Your task to perform on an android device: Clear all items from cart on newegg.com. Add "alienware aurora" to the cart on newegg.com, then select checkout. Image 0: 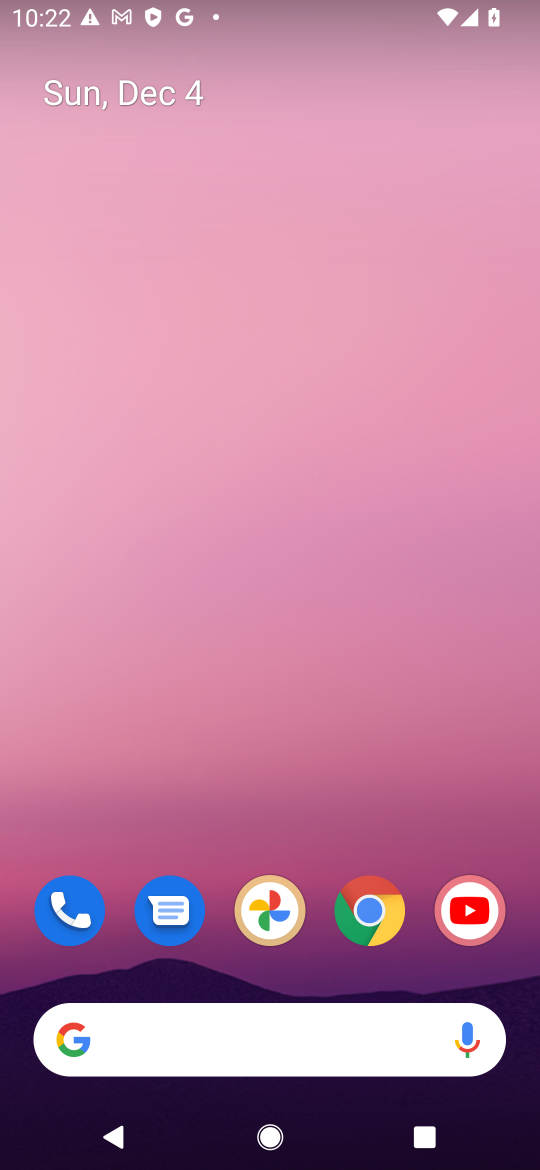
Step 0: drag from (343, 937) to (387, 170)
Your task to perform on an android device: Clear all items from cart on newegg.com. Add "alienware aurora" to the cart on newegg.com, then select checkout. Image 1: 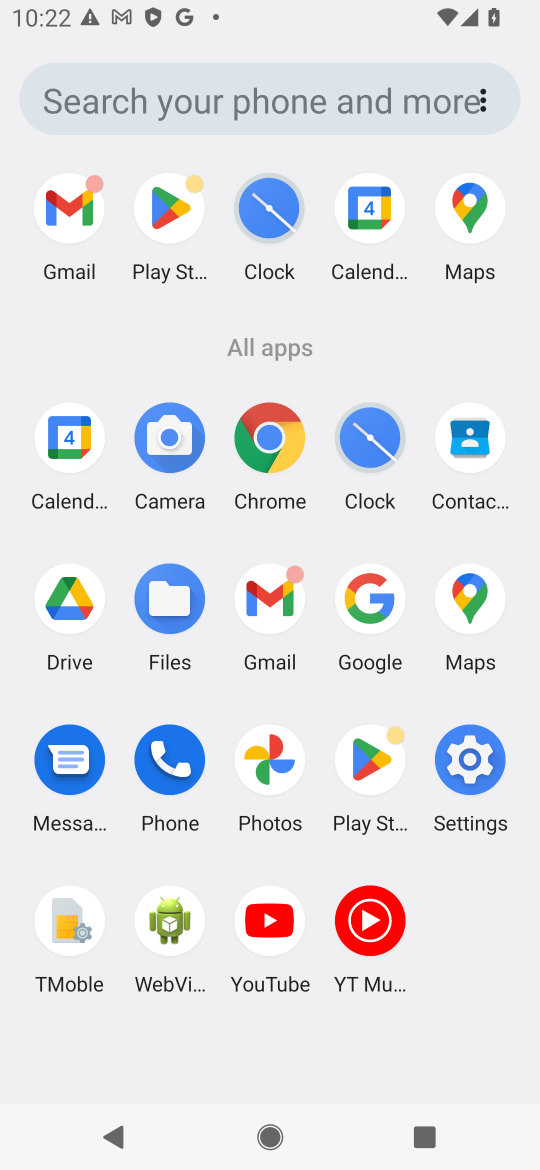
Step 1: click (270, 436)
Your task to perform on an android device: Clear all items from cart on newegg.com. Add "alienware aurora" to the cart on newegg.com, then select checkout. Image 2: 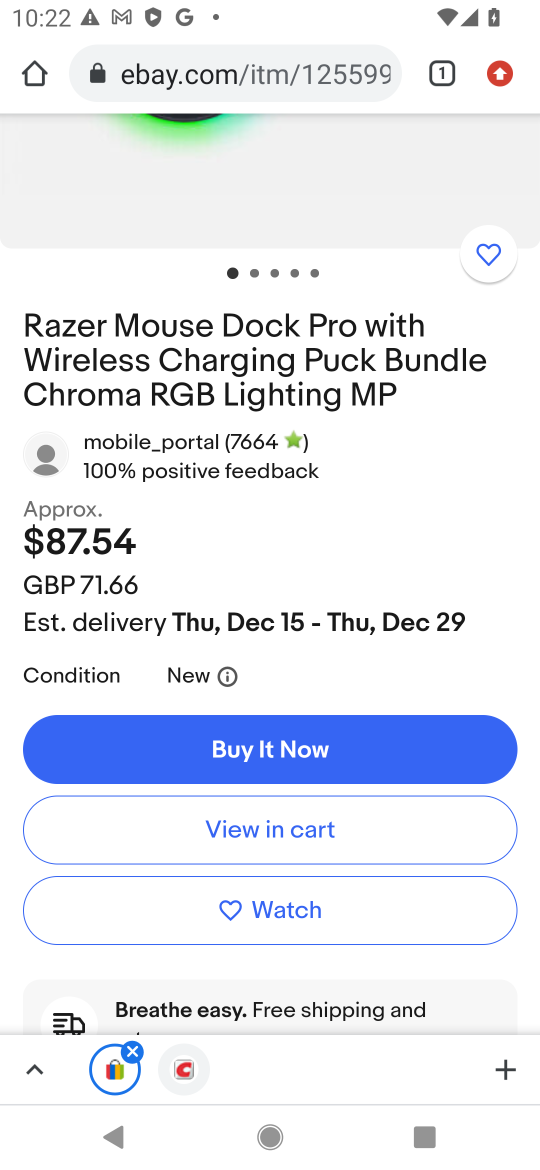
Step 2: click (181, 71)
Your task to perform on an android device: Clear all items from cart on newegg.com. Add "alienware aurora" to the cart on newegg.com, then select checkout. Image 3: 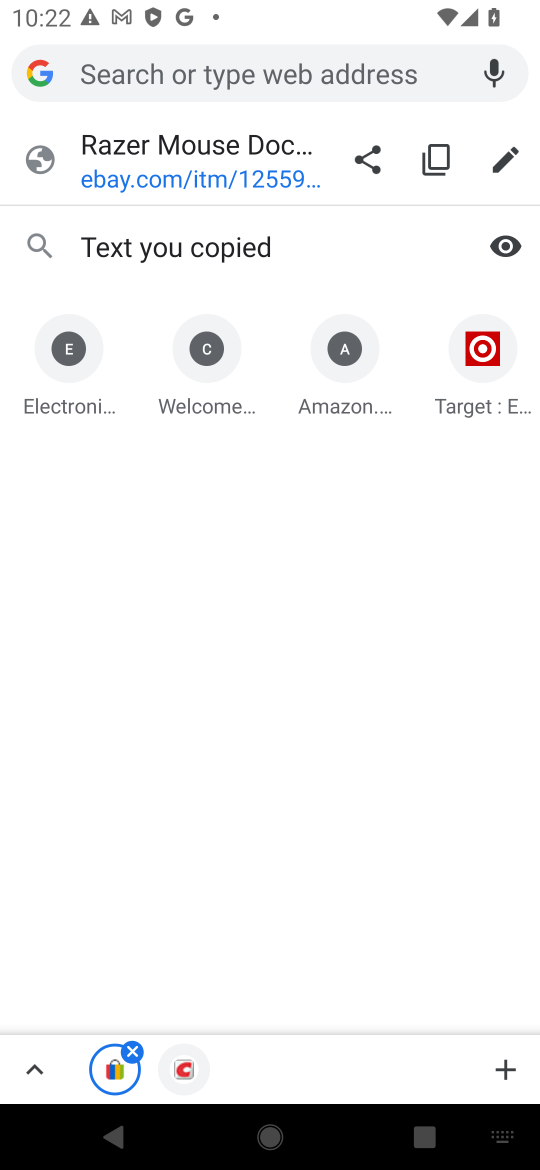
Step 3: type " newegg.com"
Your task to perform on an android device: Clear all items from cart on newegg.com. Add "alienware aurora" to the cart on newegg.com, then select checkout. Image 4: 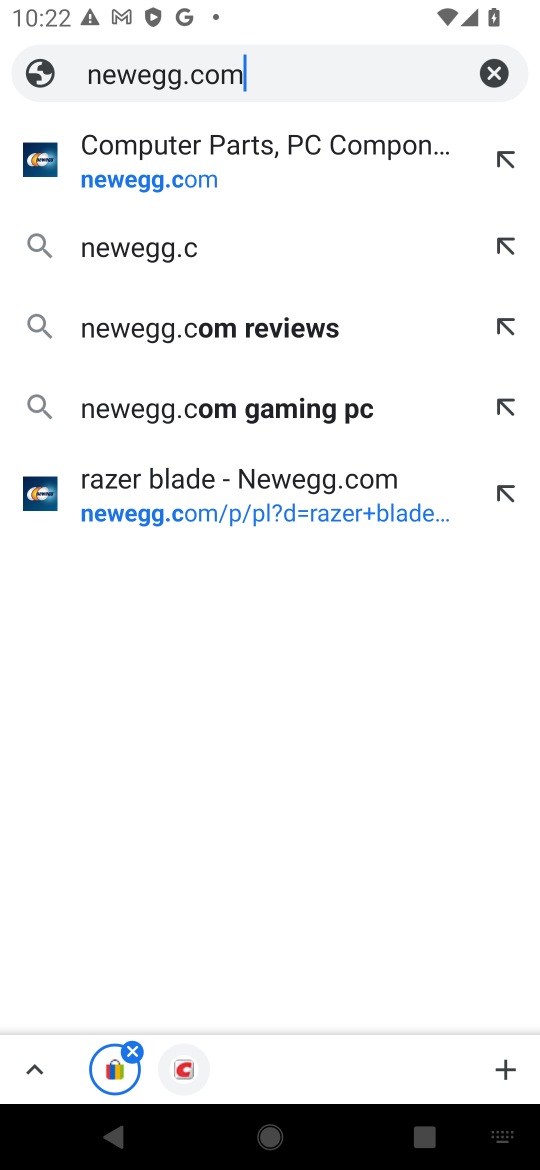
Step 4: type ""
Your task to perform on an android device: Clear all items from cart on newegg.com. Add "alienware aurora" to the cart on newegg.com, then select checkout. Image 5: 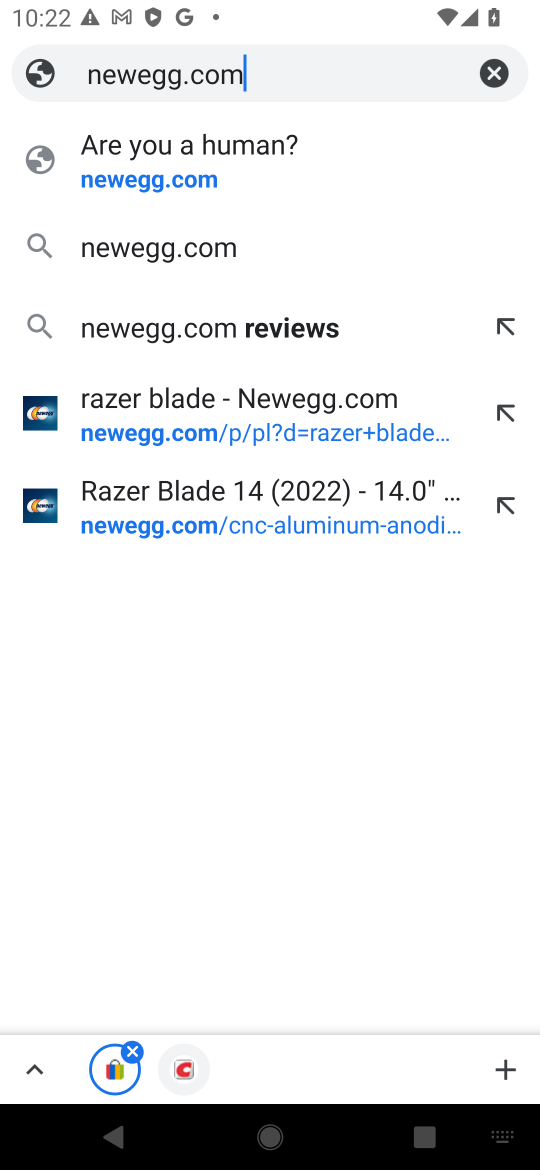
Step 5: click (156, 180)
Your task to perform on an android device: Clear all items from cart on newegg.com. Add "alienware aurora" to the cart on newegg.com, then select checkout. Image 6: 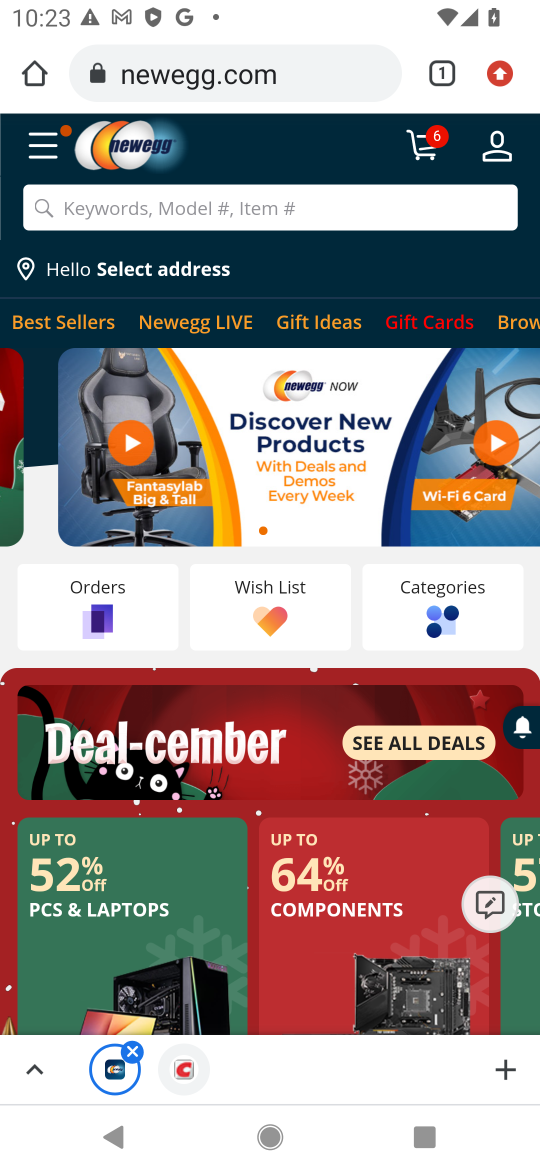
Step 6: click (419, 143)
Your task to perform on an android device: Clear all items from cart on newegg.com. Add "alienware aurora" to the cart on newegg.com, then select checkout. Image 7: 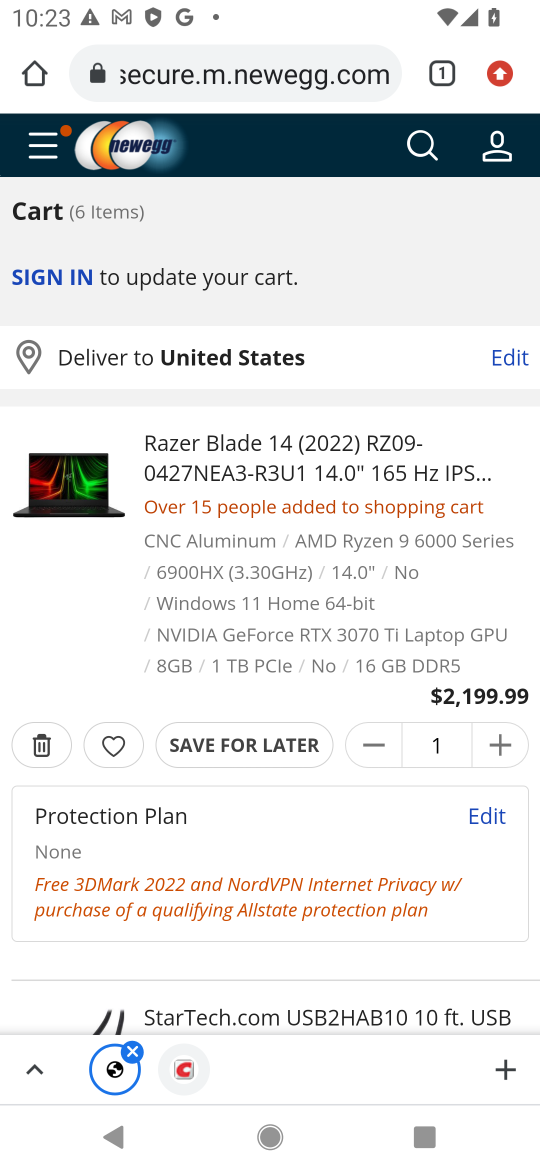
Step 7: click (39, 731)
Your task to perform on an android device: Clear all items from cart on newegg.com. Add "alienware aurora" to the cart on newegg.com, then select checkout. Image 8: 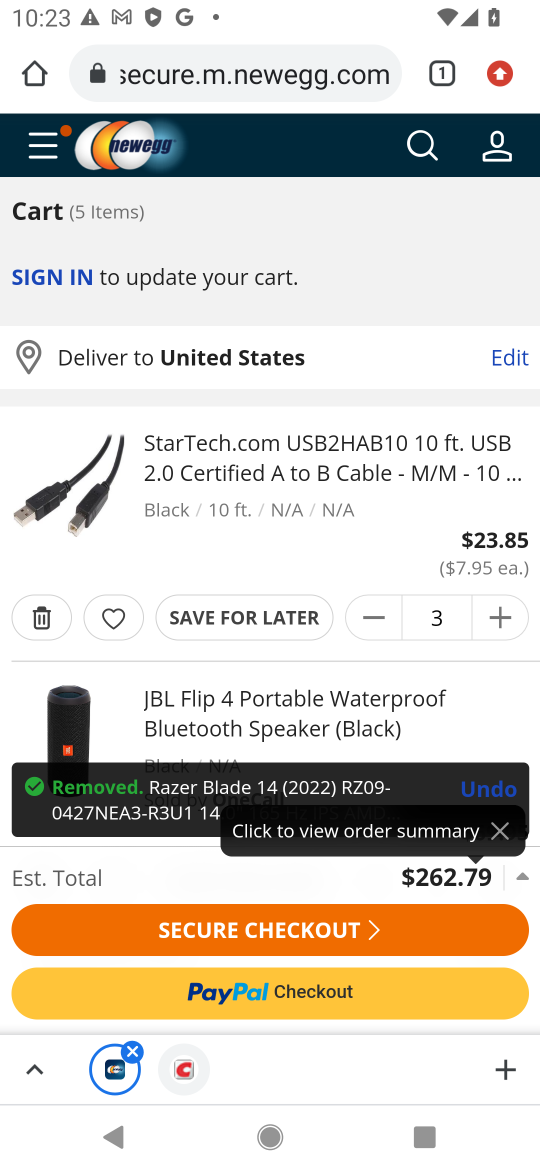
Step 8: click (39, 609)
Your task to perform on an android device: Clear all items from cart on newegg.com. Add "alienware aurora" to the cart on newegg.com, then select checkout. Image 9: 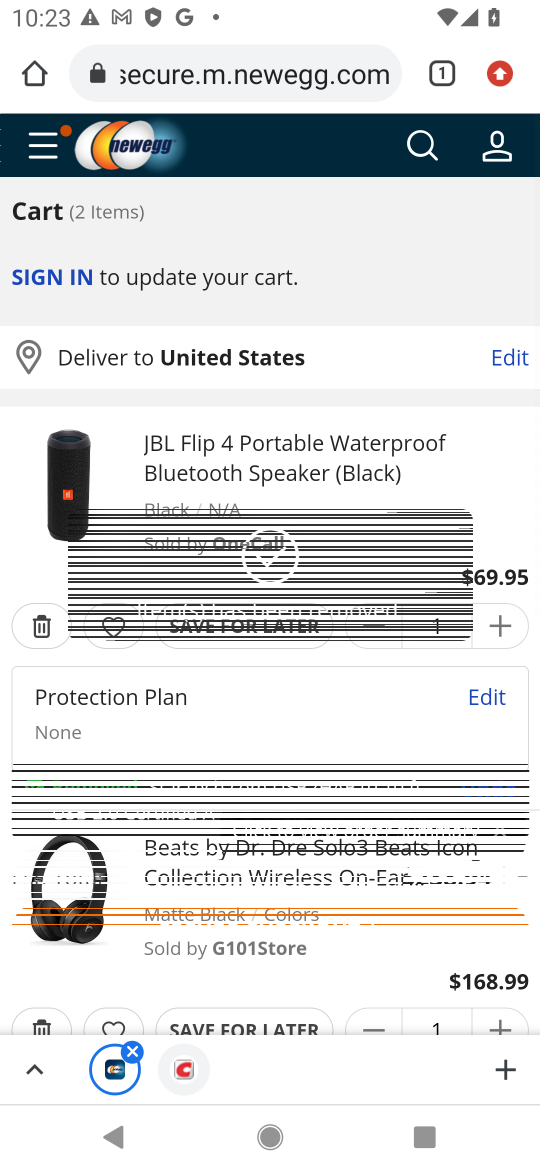
Step 9: click (35, 623)
Your task to perform on an android device: Clear all items from cart on newegg.com. Add "alienware aurora" to the cart on newegg.com, then select checkout. Image 10: 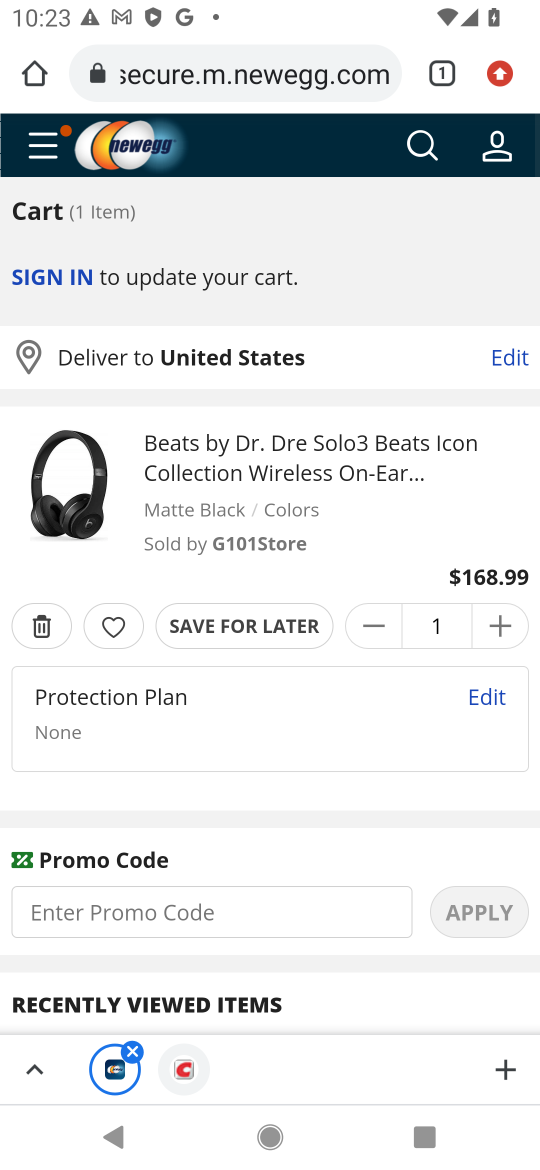
Step 10: click (35, 623)
Your task to perform on an android device: Clear all items from cart on newegg.com. Add "alienware aurora" to the cart on newegg.com, then select checkout. Image 11: 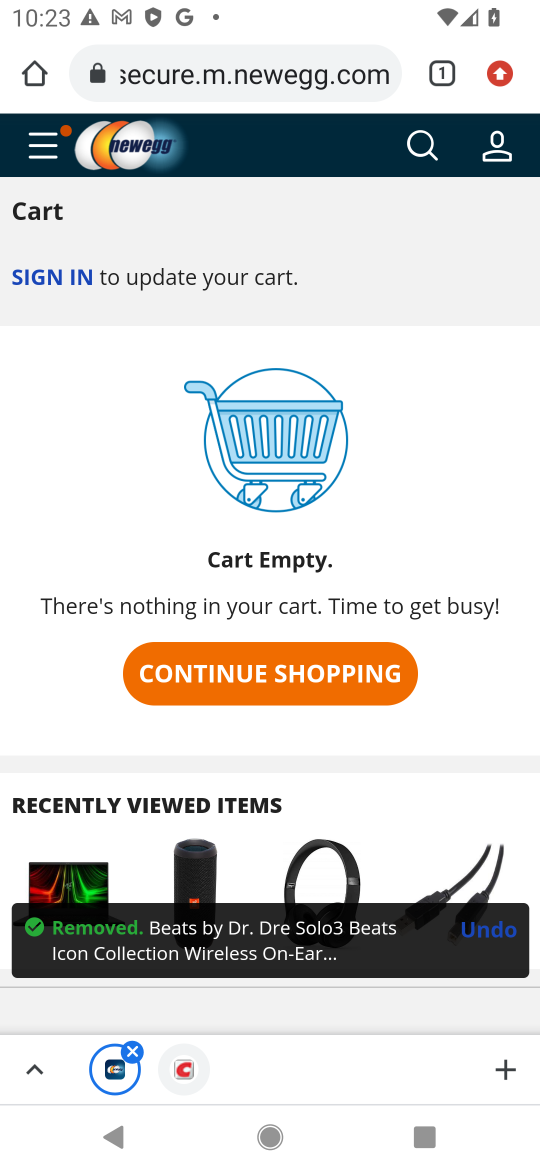
Step 11: click (414, 155)
Your task to perform on an android device: Clear all items from cart on newegg.com. Add "alienware aurora" to the cart on newegg.com, then select checkout. Image 12: 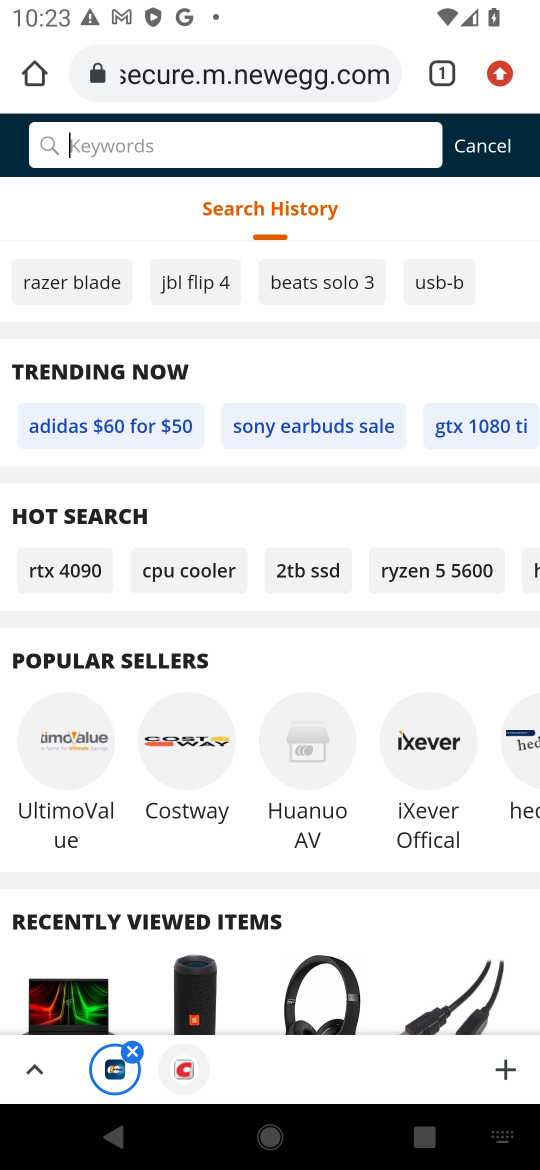
Step 12: type "alienware aurora"
Your task to perform on an android device: Clear all items from cart on newegg.com. Add "alienware aurora" to the cart on newegg.com, then select checkout. Image 13: 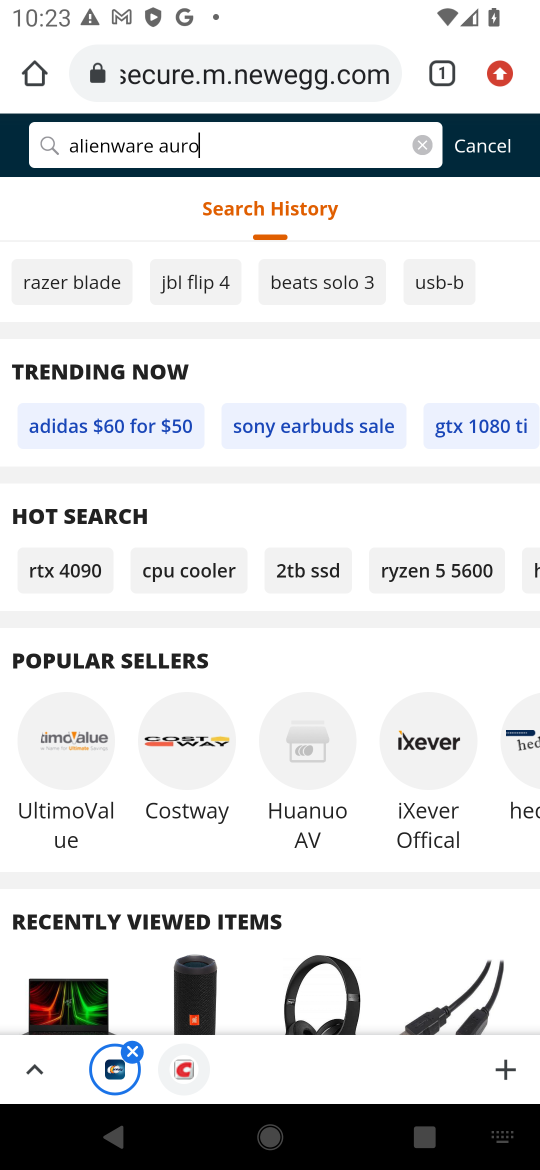
Step 13: type ""
Your task to perform on an android device: Clear all items from cart on newegg.com. Add "alienware aurora" to the cart on newegg.com, then select checkout. Image 14: 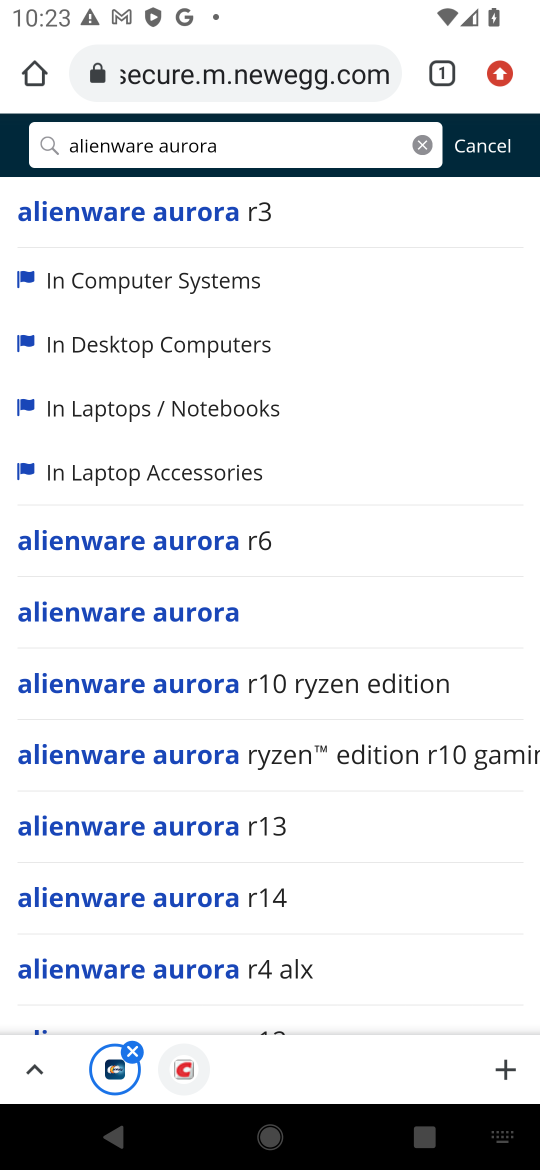
Step 14: click (139, 606)
Your task to perform on an android device: Clear all items from cart on newegg.com. Add "alienware aurora" to the cart on newegg.com, then select checkout. Image 15: 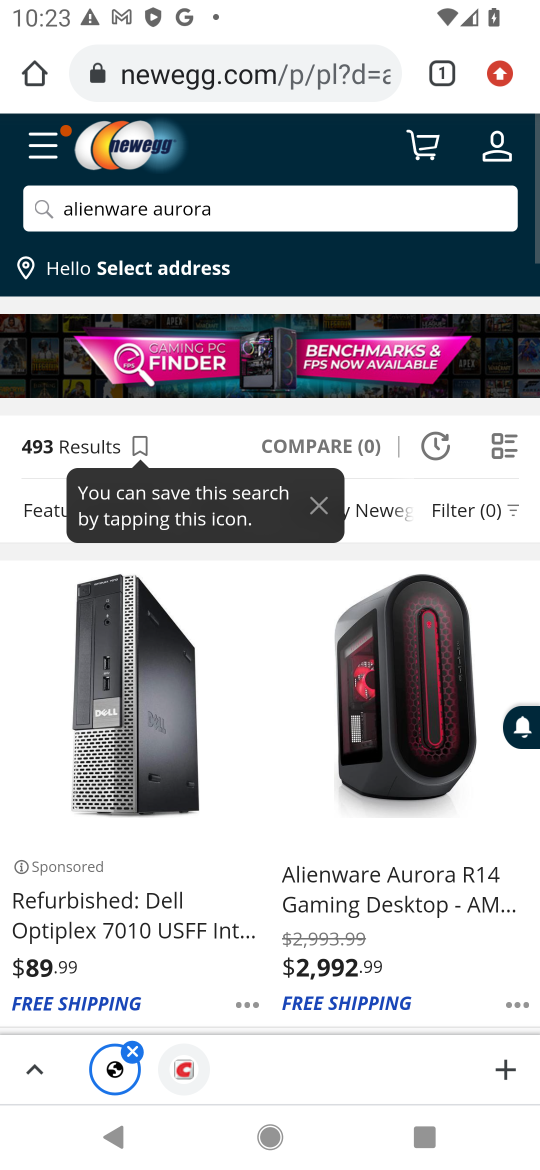
Step 15: click (374, 748)
Your task to perform on an android device: Clear all items from cart on newegg.com. Add "alienware aurora" to the cart on newegg.com, then select checkout. Image 16: 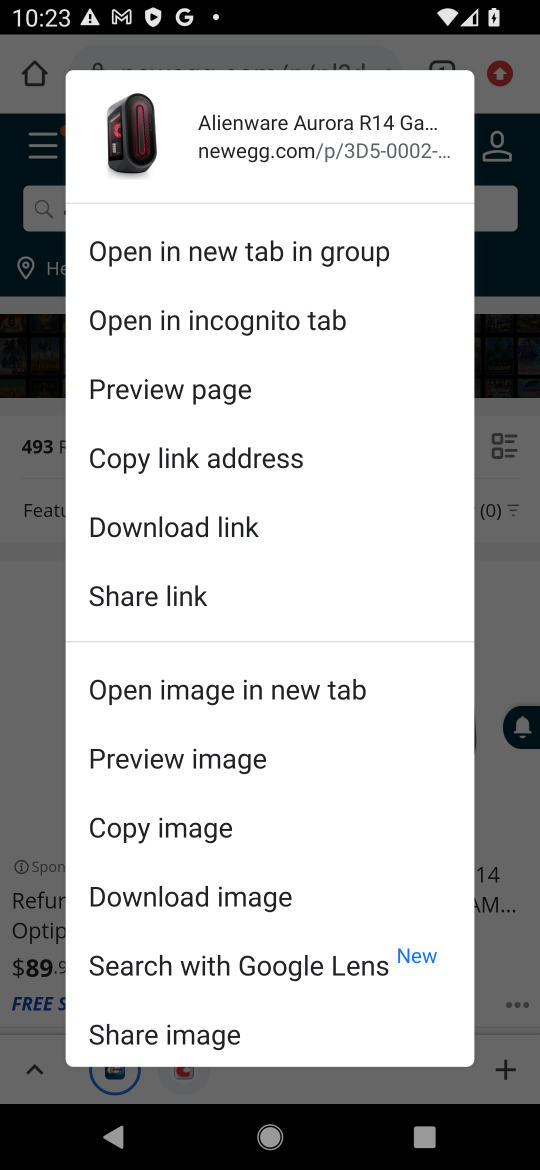
Step 16: click (196, 242)
Your task to perform on an android device: Clear all items from cart on newegg.com. Add "alienware aurora" to the cart on newegg.com, then select checkout. Image 17: 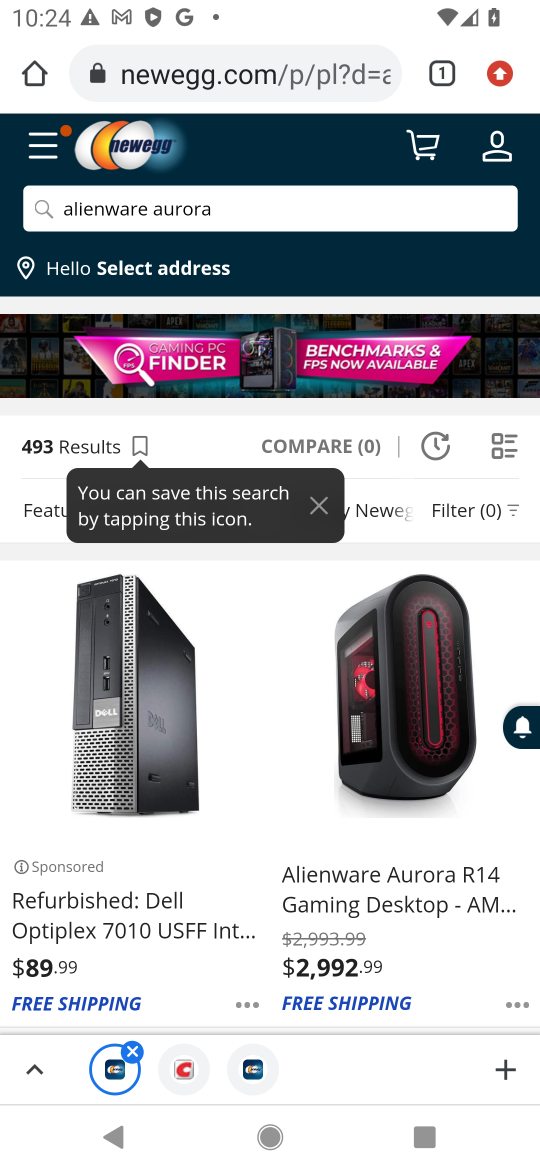
Step 17: click (423, 655)
Your task to perform on an android device: Clear all items from cart on newegg.com. Add "alienware aurora" to the cart on newegg.com, then select checkout. Image 18: 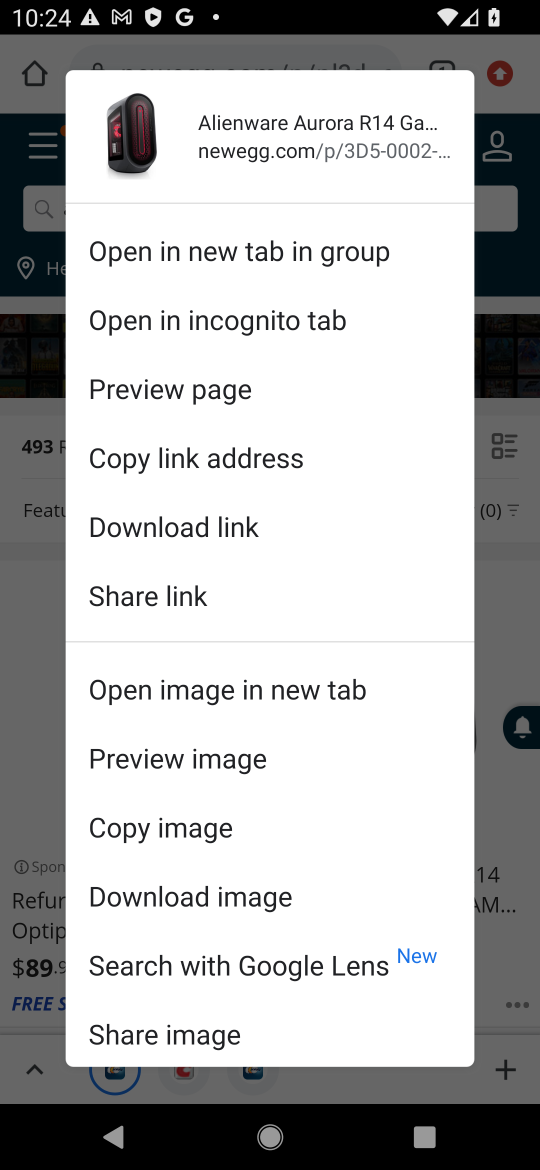
Step 18: click (521, 667)
Your task to perform on an android device: Clear all items from cart on newegg.com. Add "alienware aurora" to the cart on newegg.com, then select checkout. Image 19: 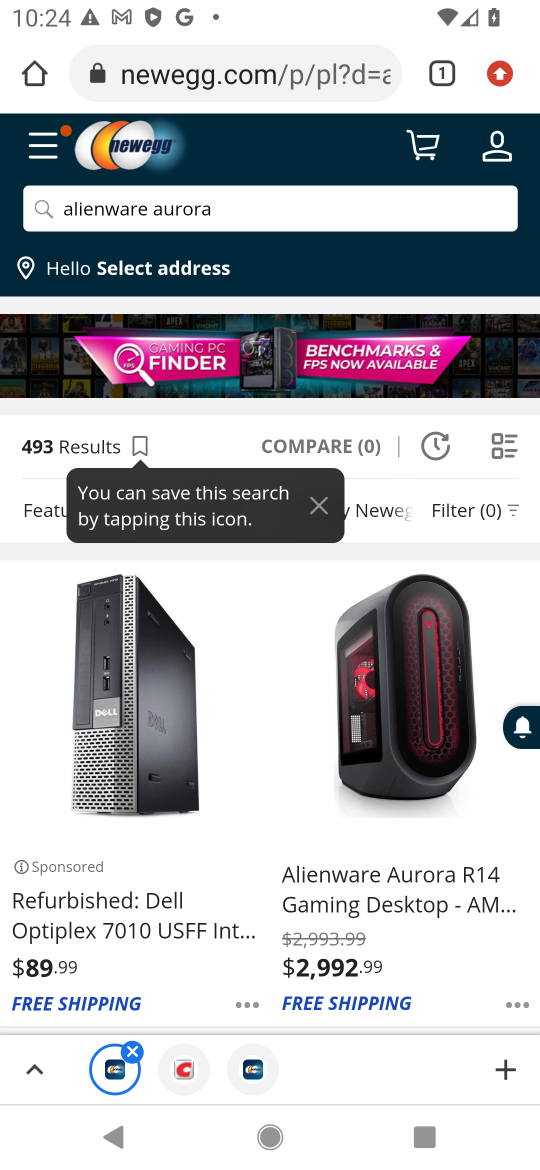
Step 19: click (405, 700)
Your task to perform on an android device: Clear all items from cart on newegg.com. Add "alienware aurora" to the cart on newegg.com, then select checkout. Image 20: 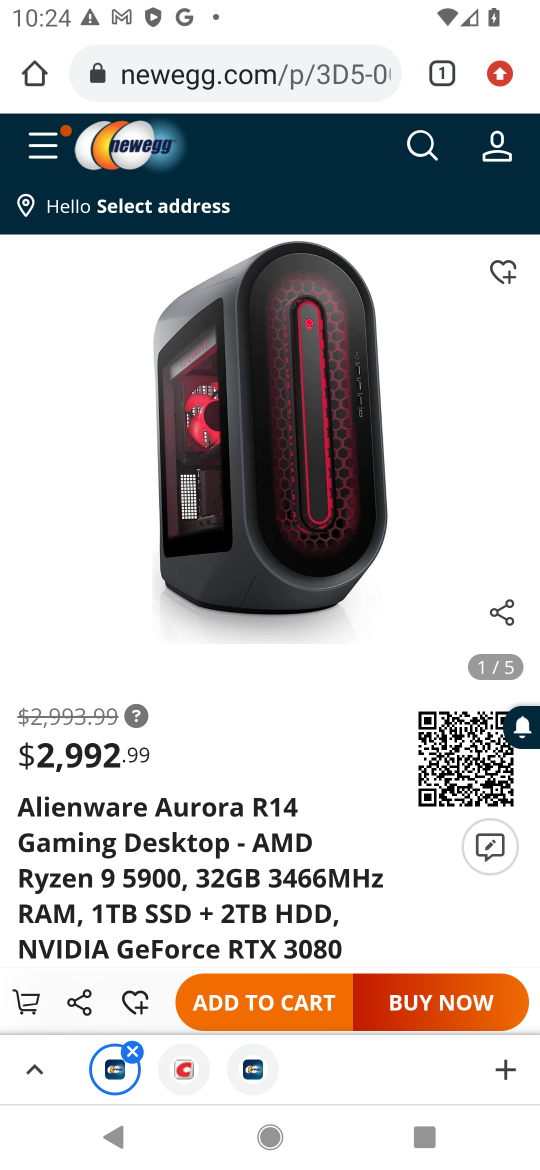
Step 20: click (282, 998)
Your task to perform on an android device: Clear all items from cart on newegg.com. Add "alienware aurora" to the cart on newegg.com, then select checkout. Image 21: 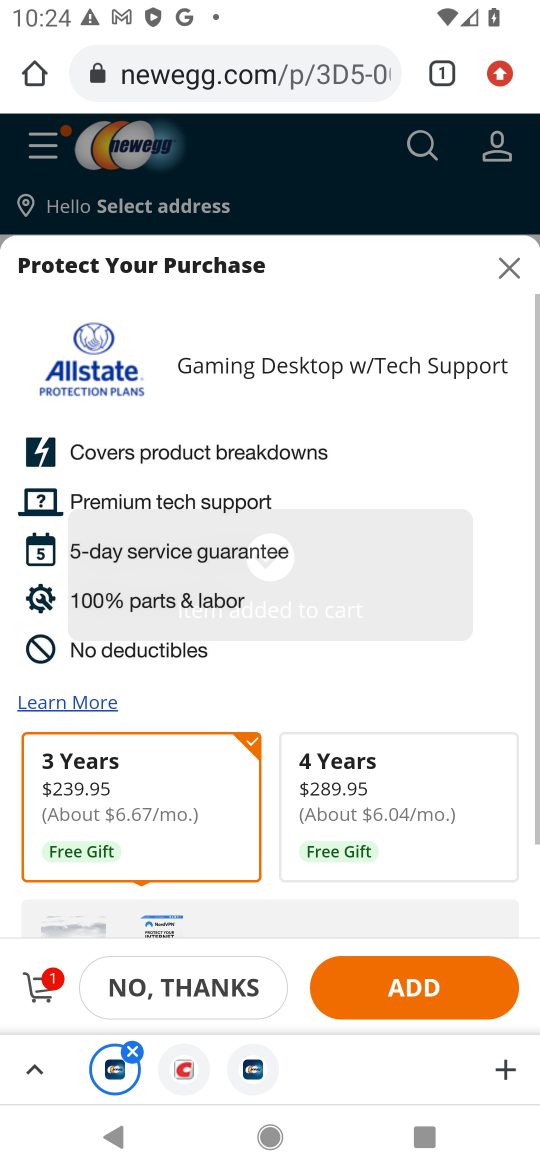
Step 21: task complete